Your task to perform on an android device: remove spam from my inbox in the gmail app Image 0: 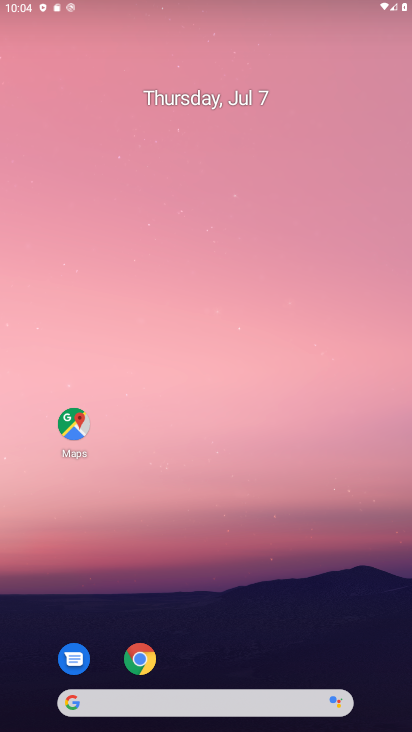
Step 0: drag from (213, 689) to (36, 11)
Your task to perform on an android device: remove spam from my inbox in the gmail app Image 1: 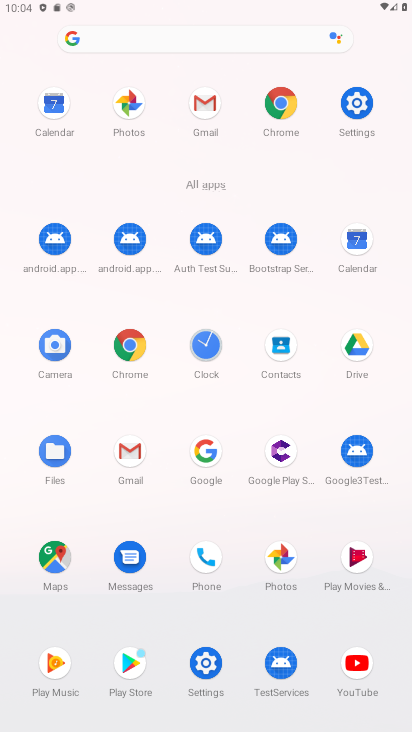
Step 1: click (204, 115)
Your task to perform on an android device: remove spam from my inbox in the gmail app Image 2: 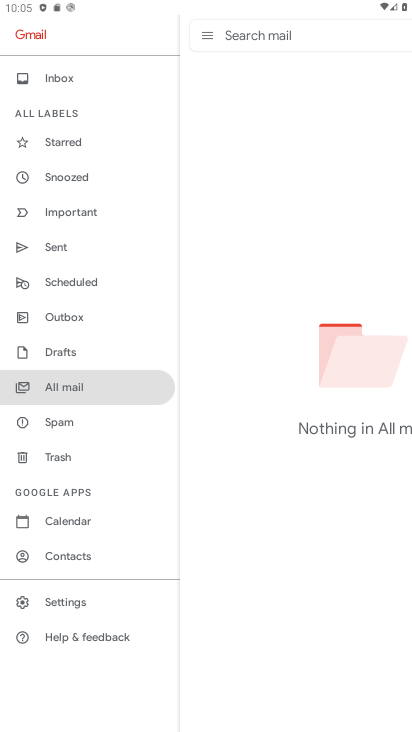
Step 2: click (54, 420)
Your task to perform on an android device: remove spam from my inbox in the gmail app Image 3: 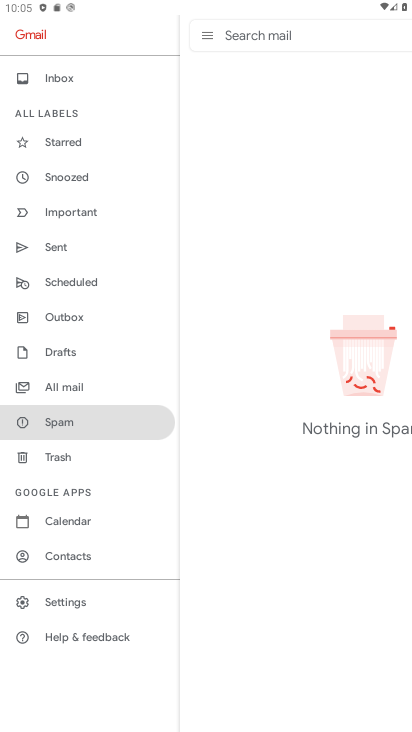
Step 3: task complete